Your task to perform on an android device: Add "lg ultragear" to the cart on walmart Image 0: 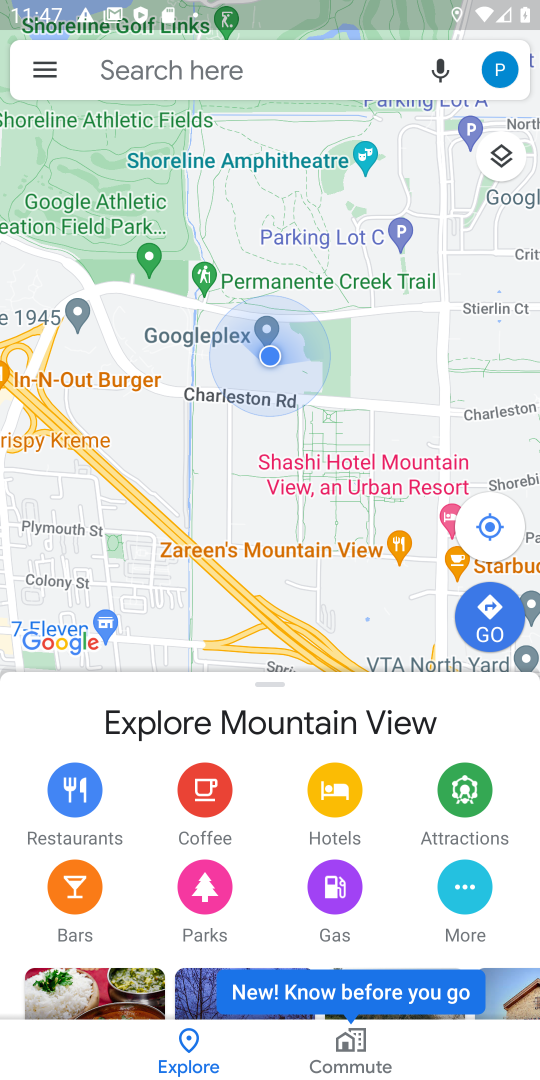
Step 0: task complete